Your task to perform on an android device: set the stopwatch Image 0: 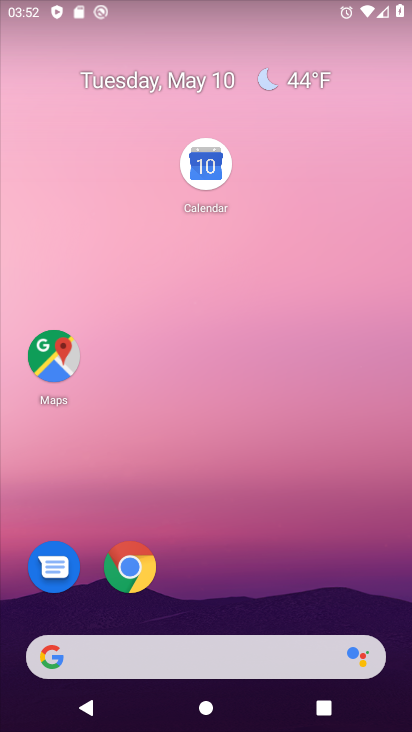
Step 0: drag from (242, 572) to (280, 57)
Your task to perform on an android device: set the stopwatch Image 1: 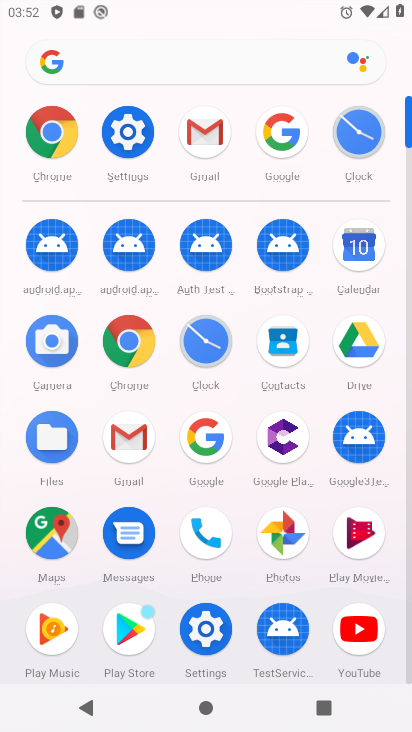
Step 1: click (359, 133)
Your task to perform on an android device: set the stopwatch Image 2: 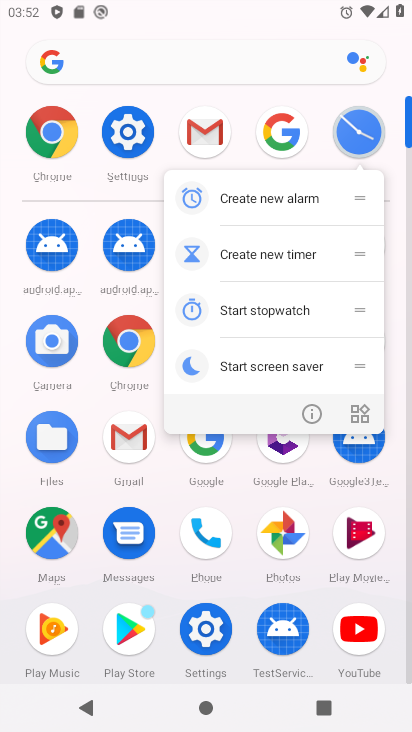
Step 2: click (246, 86)
Your task to perform on an android device: set the stopwatch Image 3: 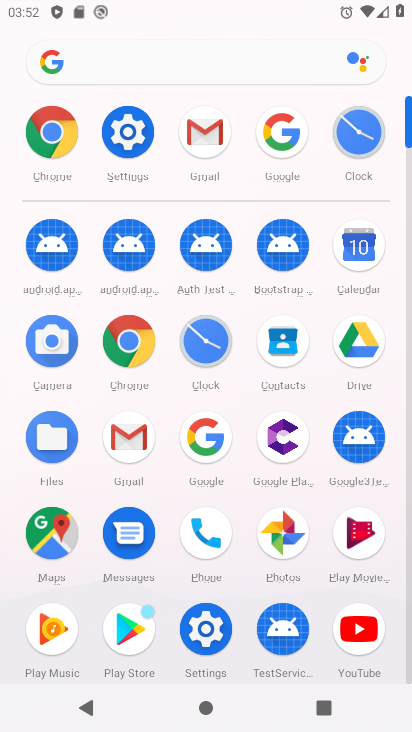
Step 3: click (363, 126)
Your task to perform on an android device: set the stopwatch Image 4: 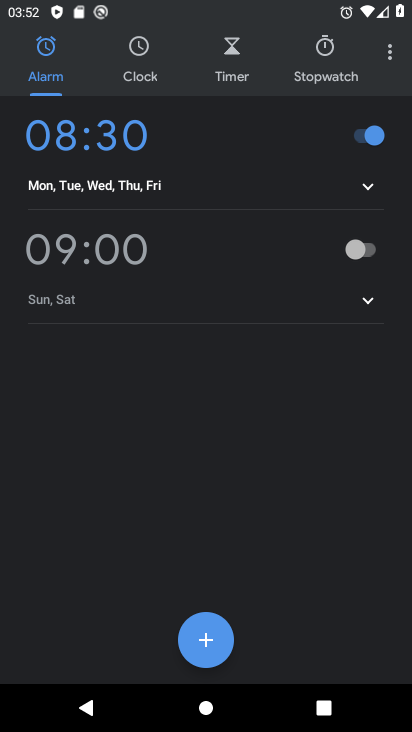
Step 4: click (321, 53)
Your task to perform on an android device: set the stopwatch Image 5: 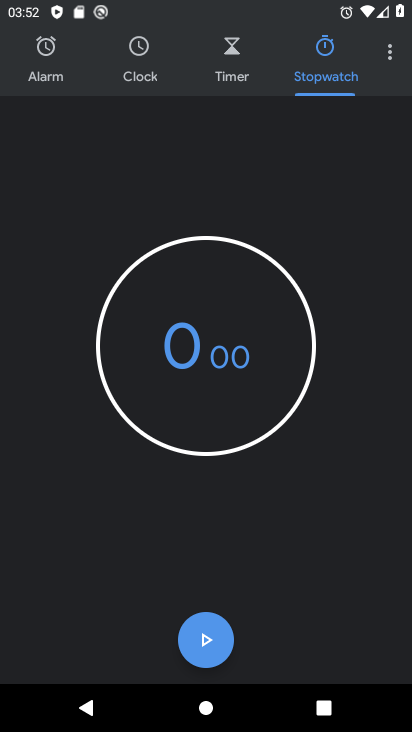
Step 5: click (200, 638)
Your task to perform on an android device: set the stopwatch Image 6: 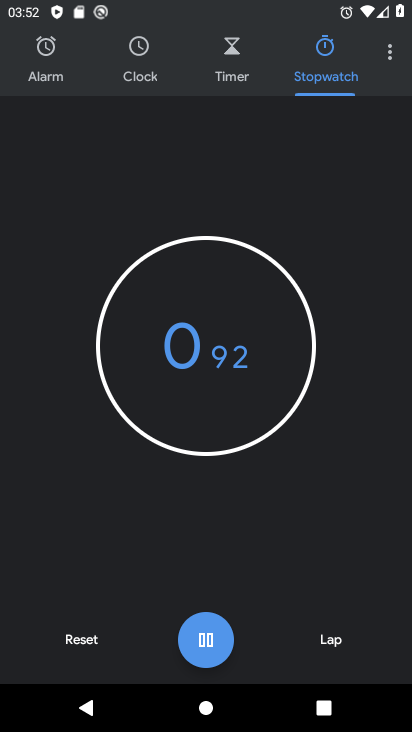
Step 6: click (200, 638)
Your task to perform on an android device: set the stopwatch Image 7: 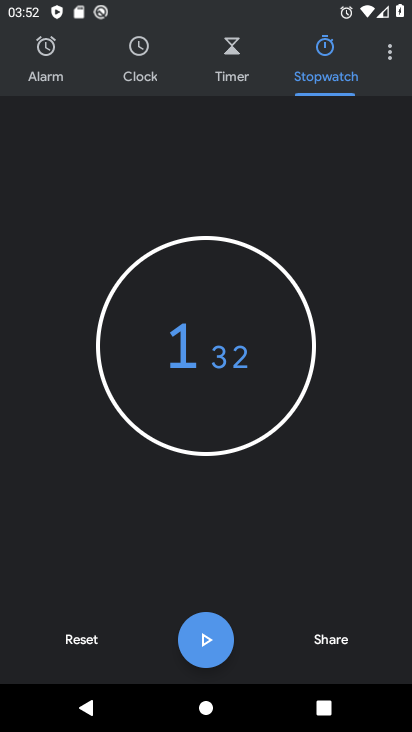
Step 7: task complete